Your task to perform on an android device: delete location history Image 0: 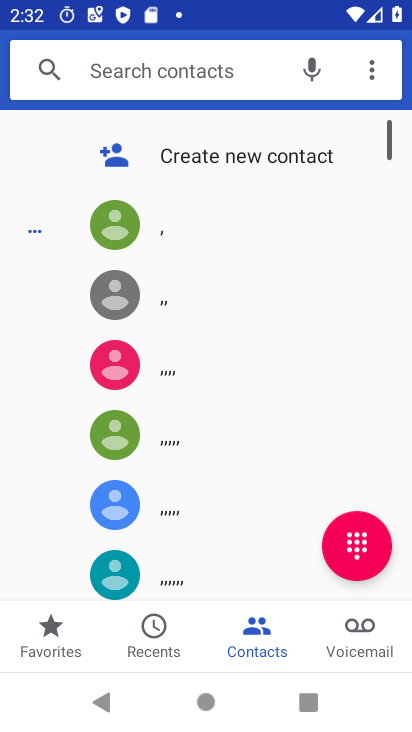
Step 0: press home button
Your task to perform on an android device: delete location history Image 1: 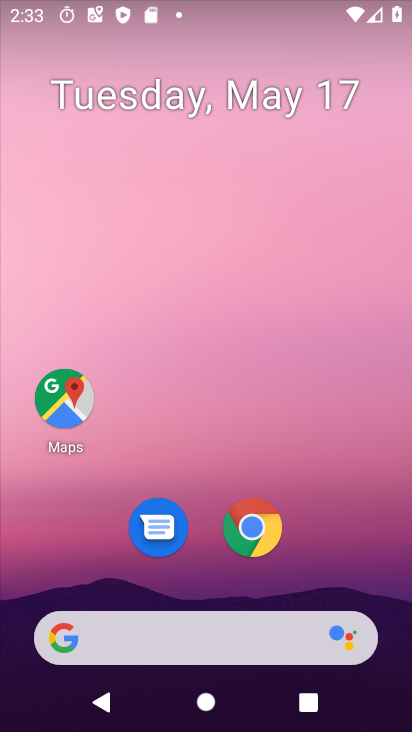
Step 1: drag from (286, 655) to (248, 204)
Your task to perform on an android device: delete location history Image 2: 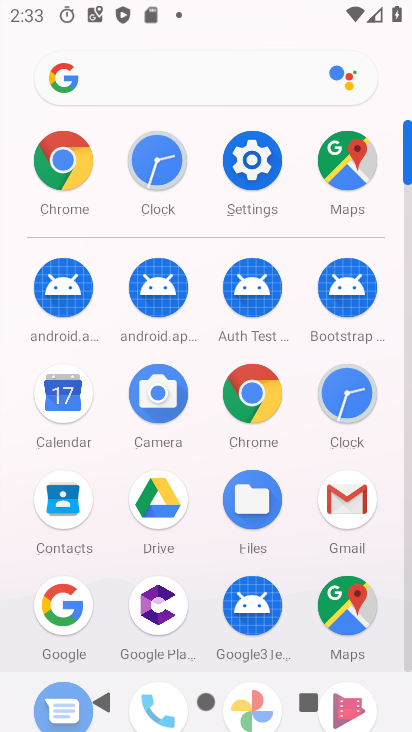
Step 2: click (247, 187)
Your task to perform on an android device: delete location history Image 3: 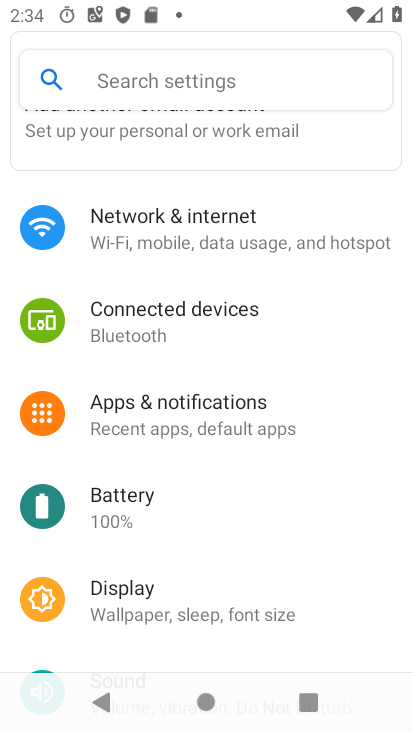
Step 3: click (214, 82)
Your task to perform on an android device: delete location history Image 4: 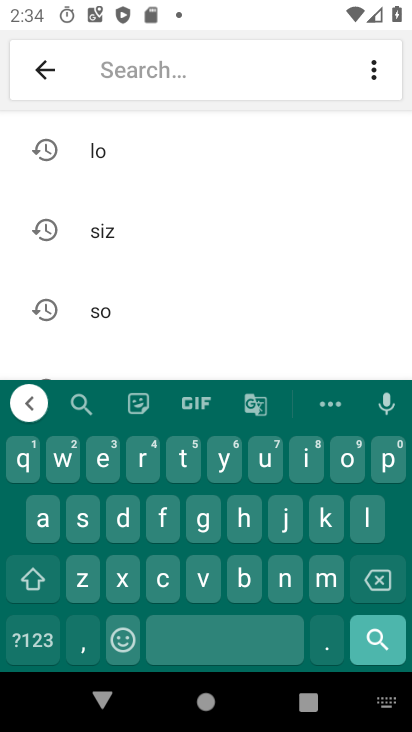
Step 4: click (173, 145)
Your task to perform on an android device: delete location history Image 5: 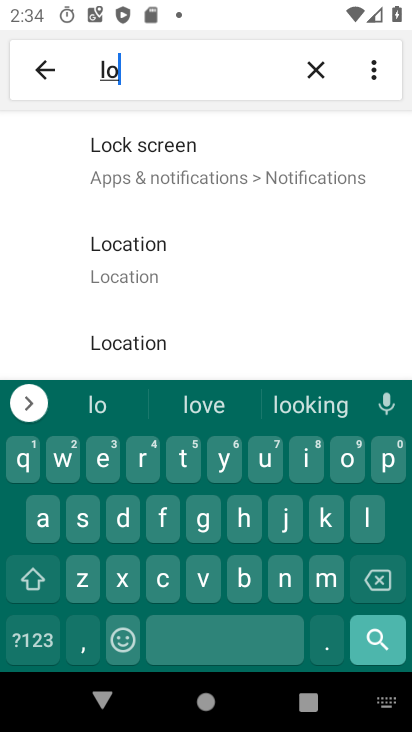
Step 5: click (150, 251)
Your task to perform on an android device: delete location history Image 6: 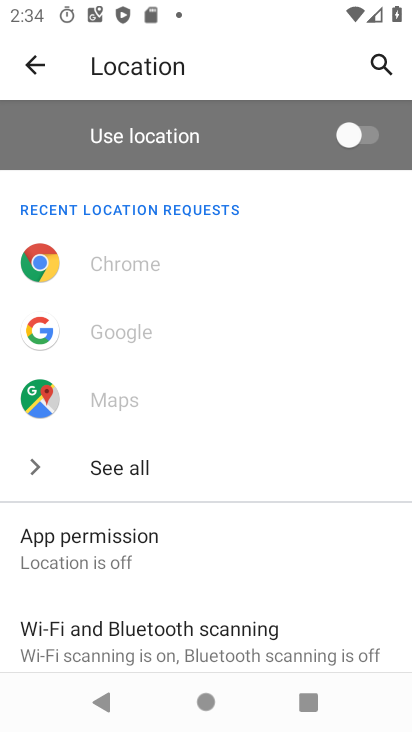
Step 6: drag from (80, 574) to (161, 292)
Your task to perform on an android device: delete location history Image 7: 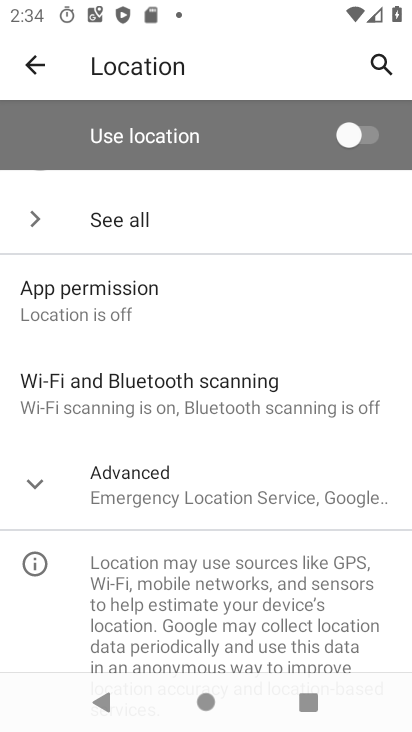
Step 7: click (129, 501)
Your task to perform on an android device: delete location history Image 8: 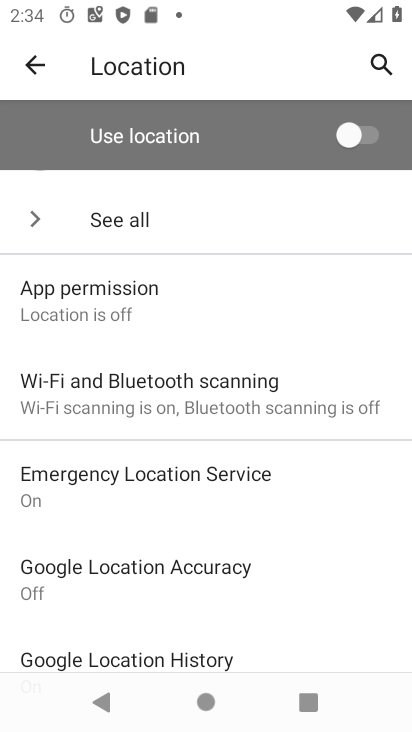
Step 8: click (108, 653)
Your task to perform on an android device: delete location history Image 9: 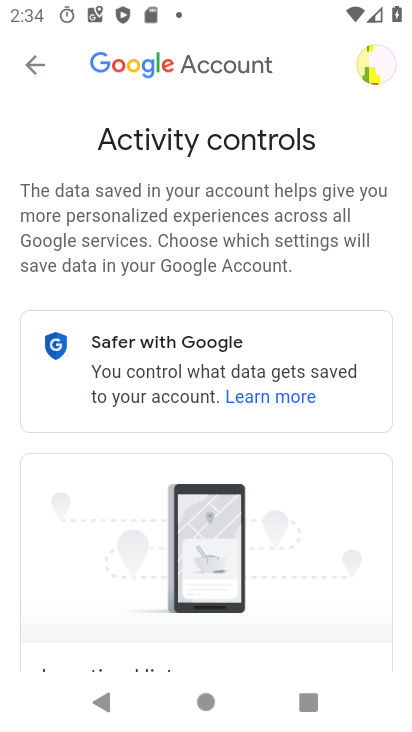
Step 9: drag from (226, 606) to (317, 255)
Your task to perform on an android device: delete location history Image 10: 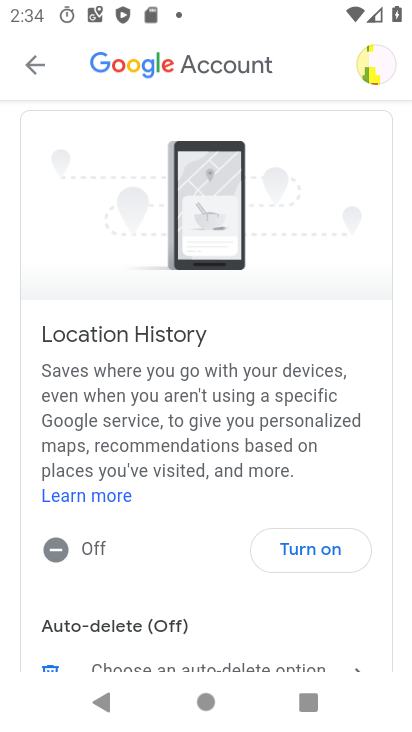
Step 10: drag from (228, 507) to (247, 384)
Your task to perform on an android device: delete location history Image 11: 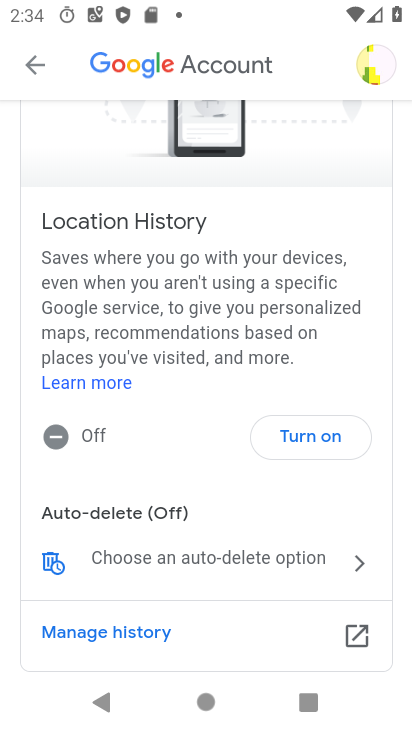
Step 11: click (189, 557)
Your task to perform on an android device: delete location history Image 12: 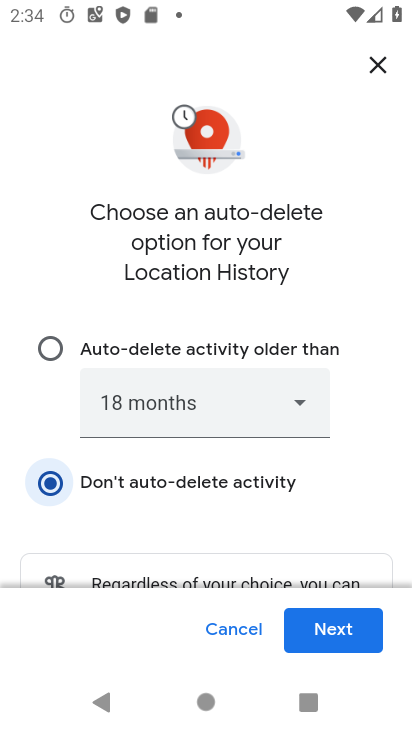
Step 12: task complete